Your task to perform on an android device: set an alarm Image 0: 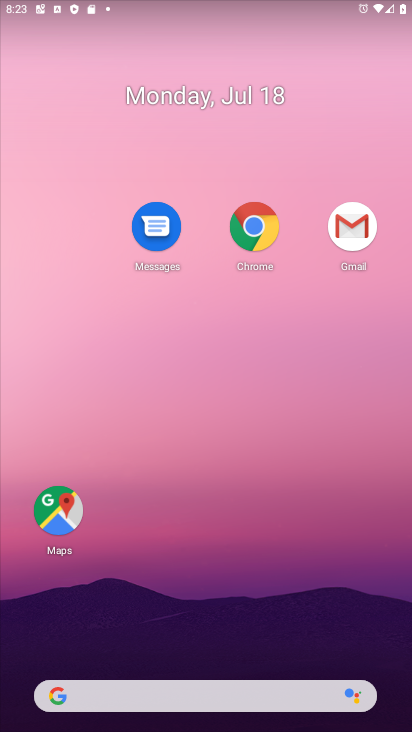
Step 0: press home button
Your task to perform on an android device: set an alarm Image 1: 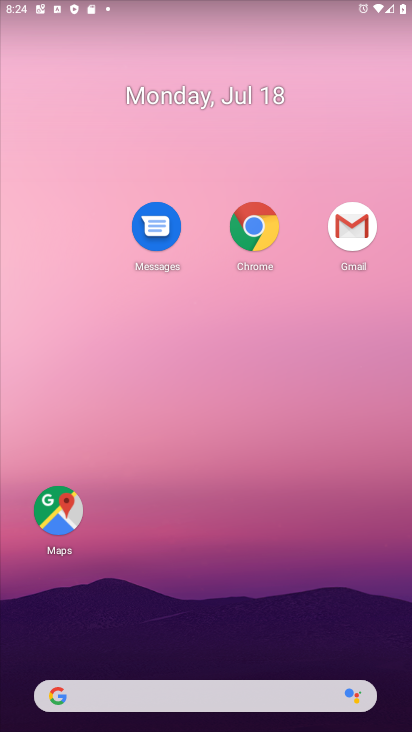
Step 1: drag from (215, 655) to (231, 2)
Your task to perform on an android device: set an alarm Image 2: 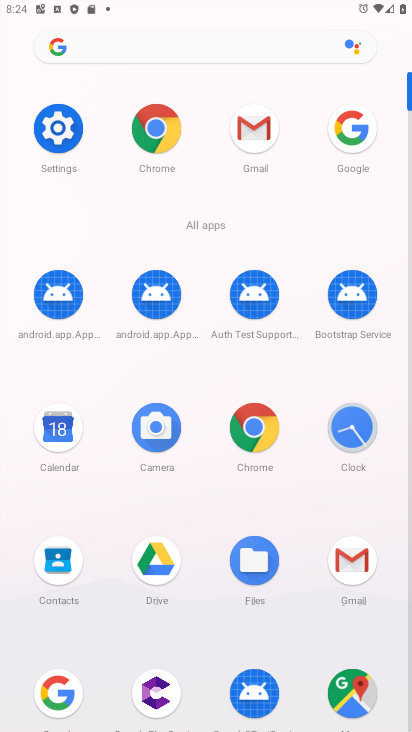
Step 2: click (346, 420)
Your task to perform on an android device: set an alarm Image 3: 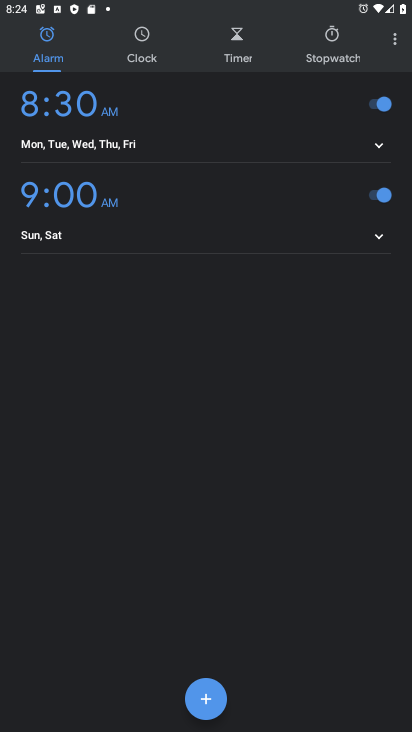
Step 3: click (213, 693)
Your task to perform on an android device: set an alarm Image 4: 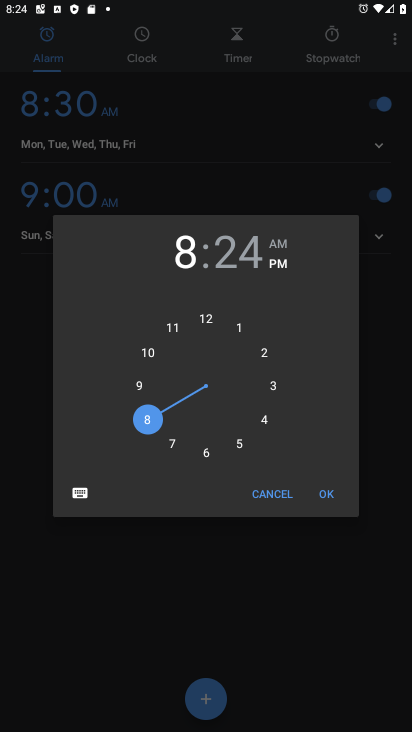
Step 4: click (325, 495)
Your task to perform on an android device: set an alarm Image 5: 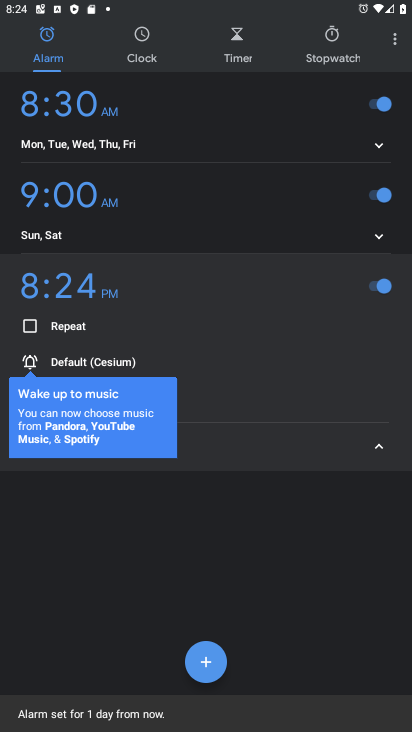
Step 5: task complete